Your task to perform on an android device: Open notification settings Image 0: 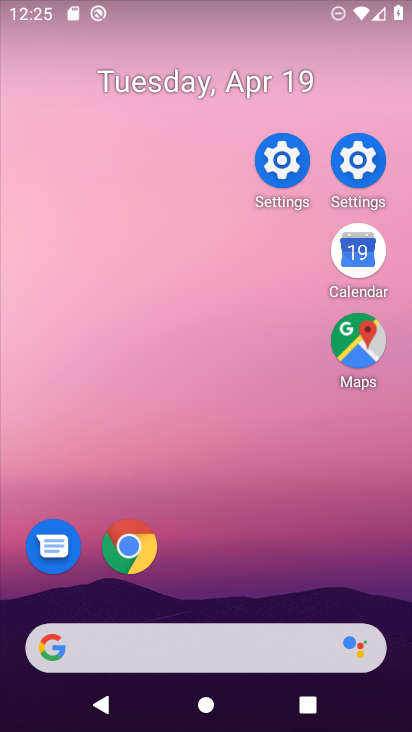
Step 0: click (205, 47)
Your task to perform on an android device: Open notification settings Image 1: 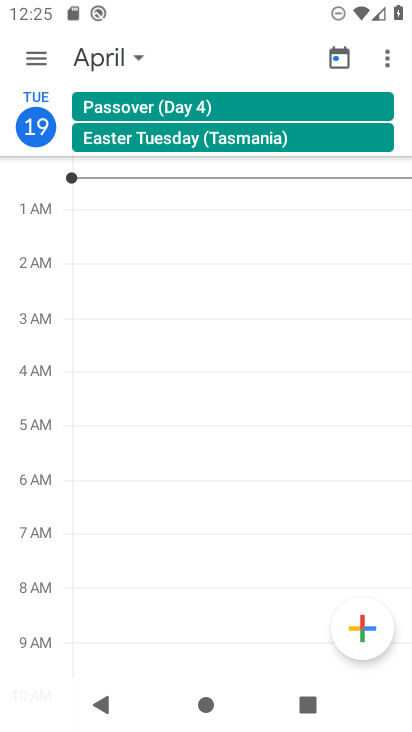
Step 1: drag from (287, 484) to (178, 194)
Your task to perform on an android device: Open notification settings Image 2: 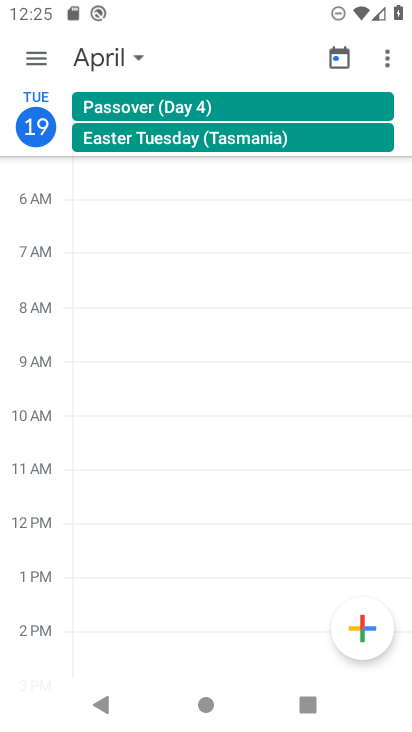
Step 2: press home button
Your task to perform on an android device: Open notification settings Image 3: 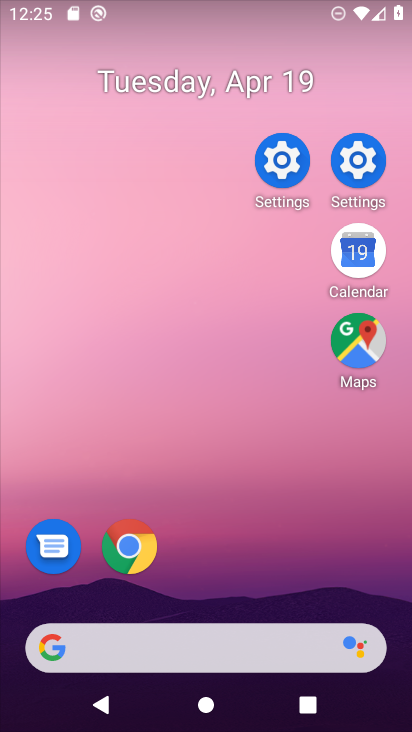
Step 3: drag from (228, 654) to (229, 101)
Your task to perform on an android device: Open notification settings Image 4: 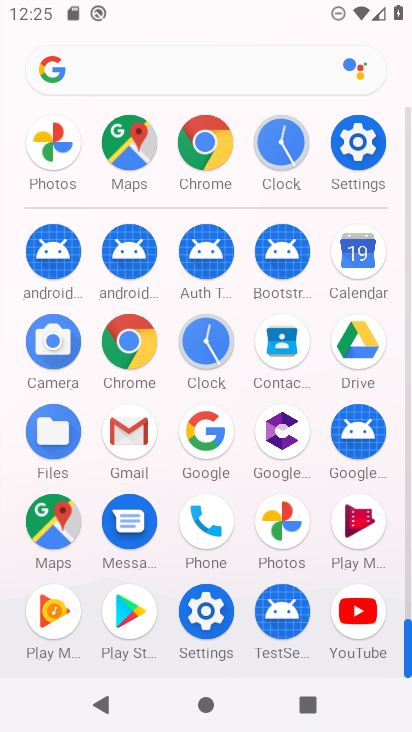
Step 4: click (360, 147)
Your task to perform on an android device: Open notification settings Image 5: 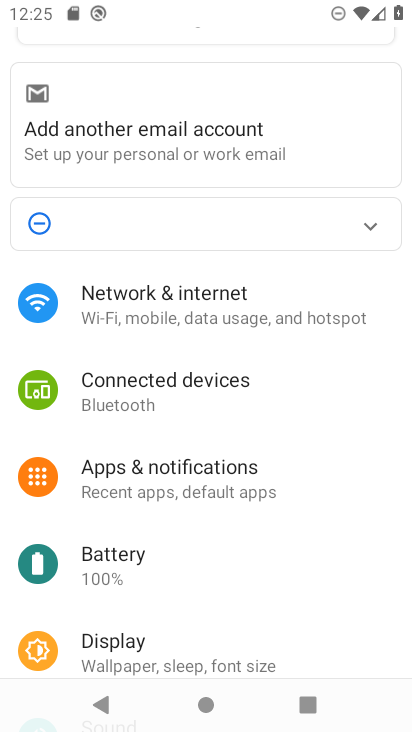
Step 5: click (153, 476)
Your task to perform on an android device: Open notification settings Image 6: 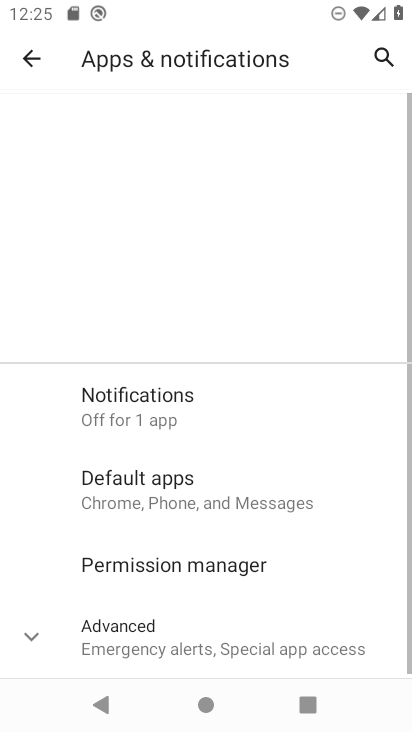
Step 6: click (153, 466)
Your task to perform on an android device: Open notification settings Image 7: 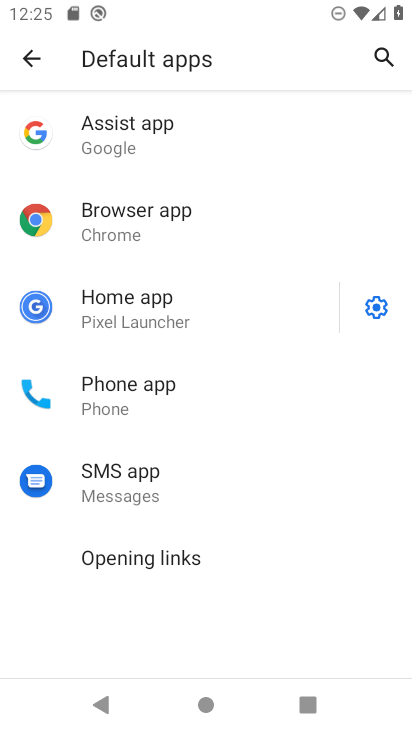
Step 7: click (144, 404)
Your task to perform on an android device: Open notification settings Image 8: 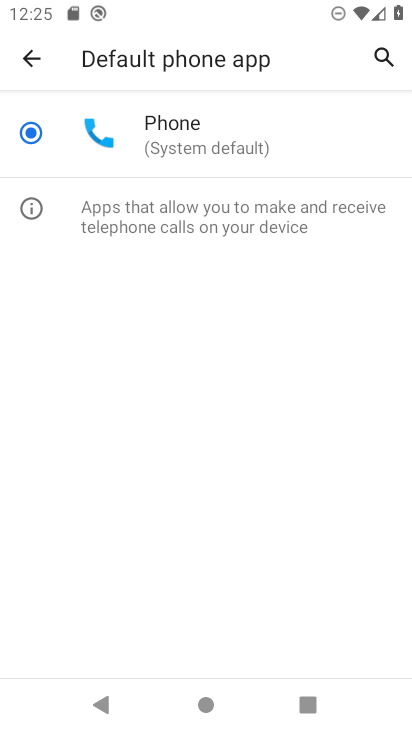
Step 8: click (25, 46)
Your task to perform on an android device: Open notification settings Image 9: 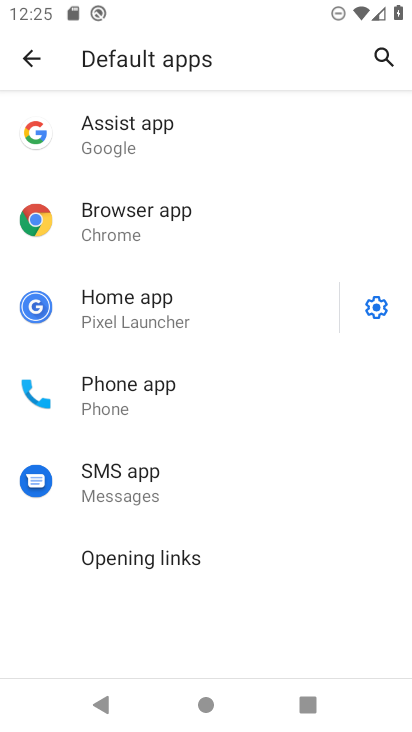
Step 9: click (24, 54)
Your task to perform on an android device: Open notification settings Image 10: 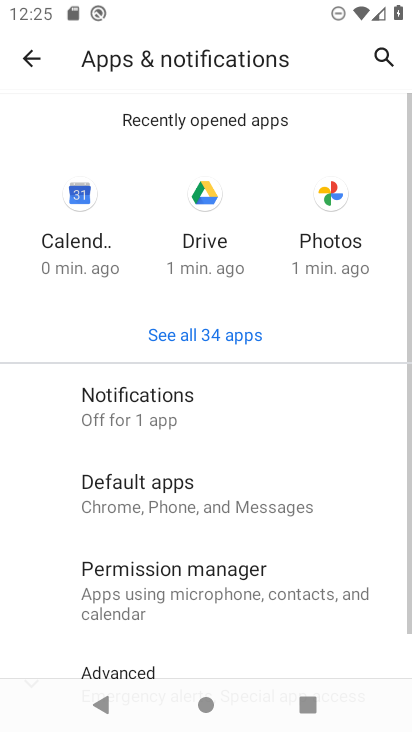
Step 10: click (114, 403)
Your task to perform on an android device: Open notification settings Image 11: 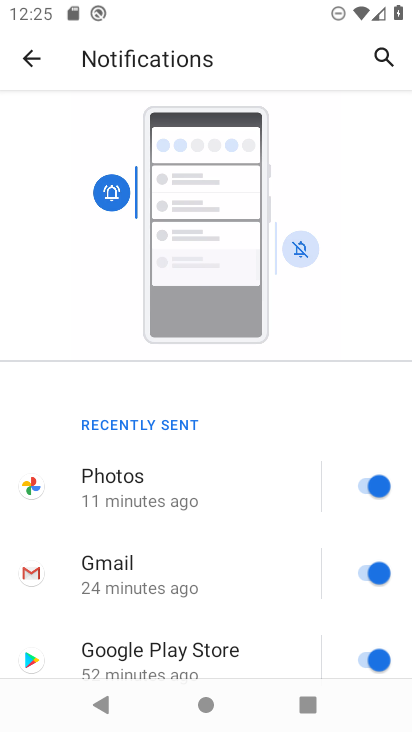
Step 11: task complete